Your task to perform on an android device: What is the capital of Italy? Image 0: 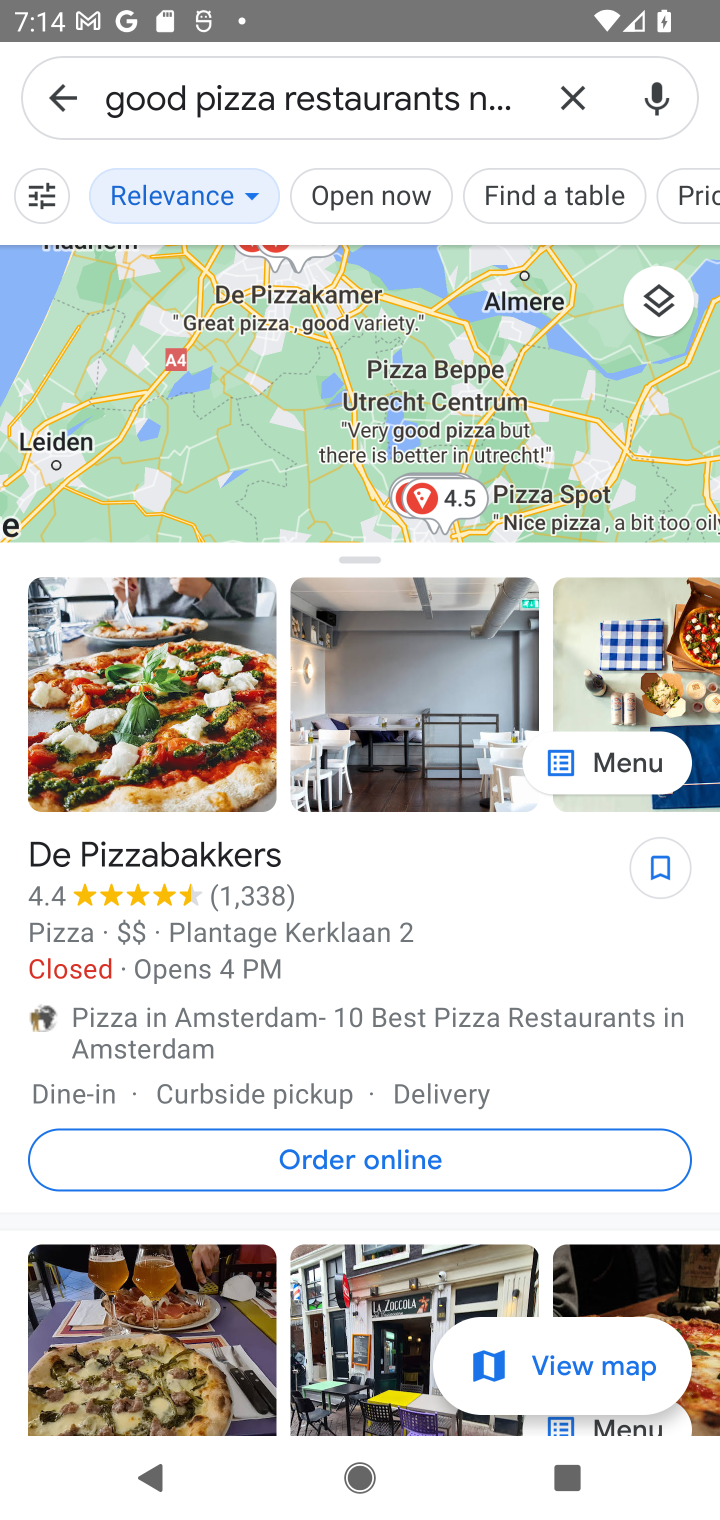
Step 0: press home button
Your task to perform on an android device: What is the capital of Italy? Image 1: 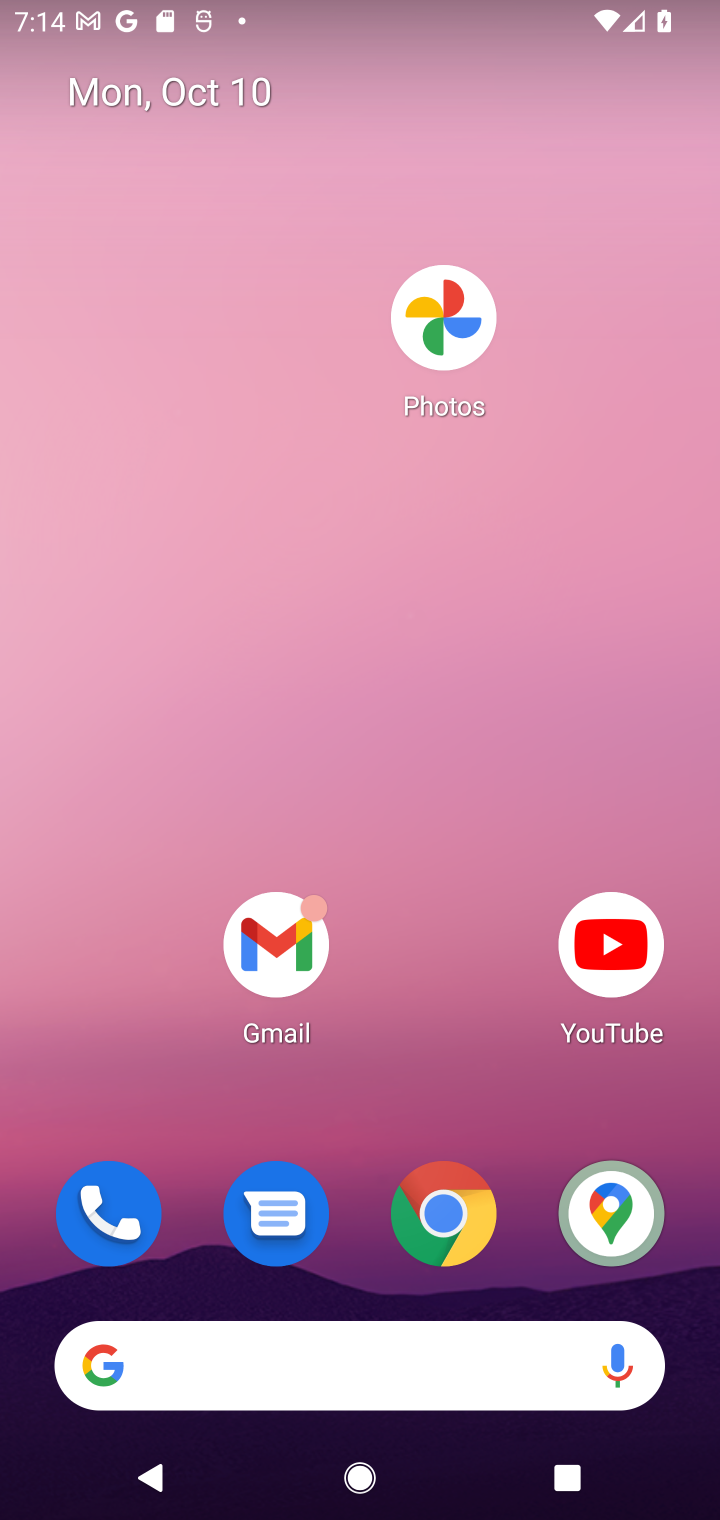
Step 1: click (376, 1346)
Your task to perform on an android device: What is the capital of Italy? Image 2: 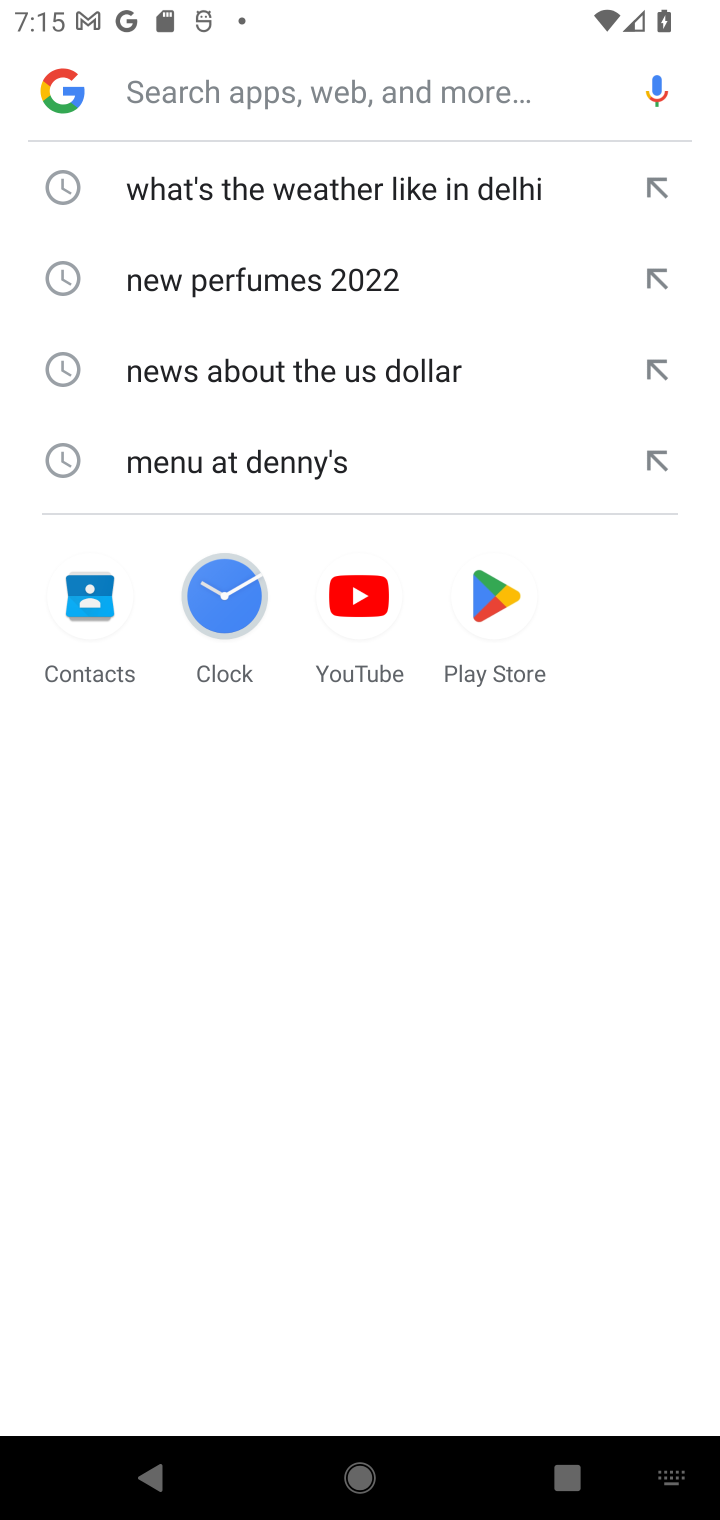
Step 2: type "capital of Italy"
Your task to perform on an android device: What is the capital of Italy? Image 3: 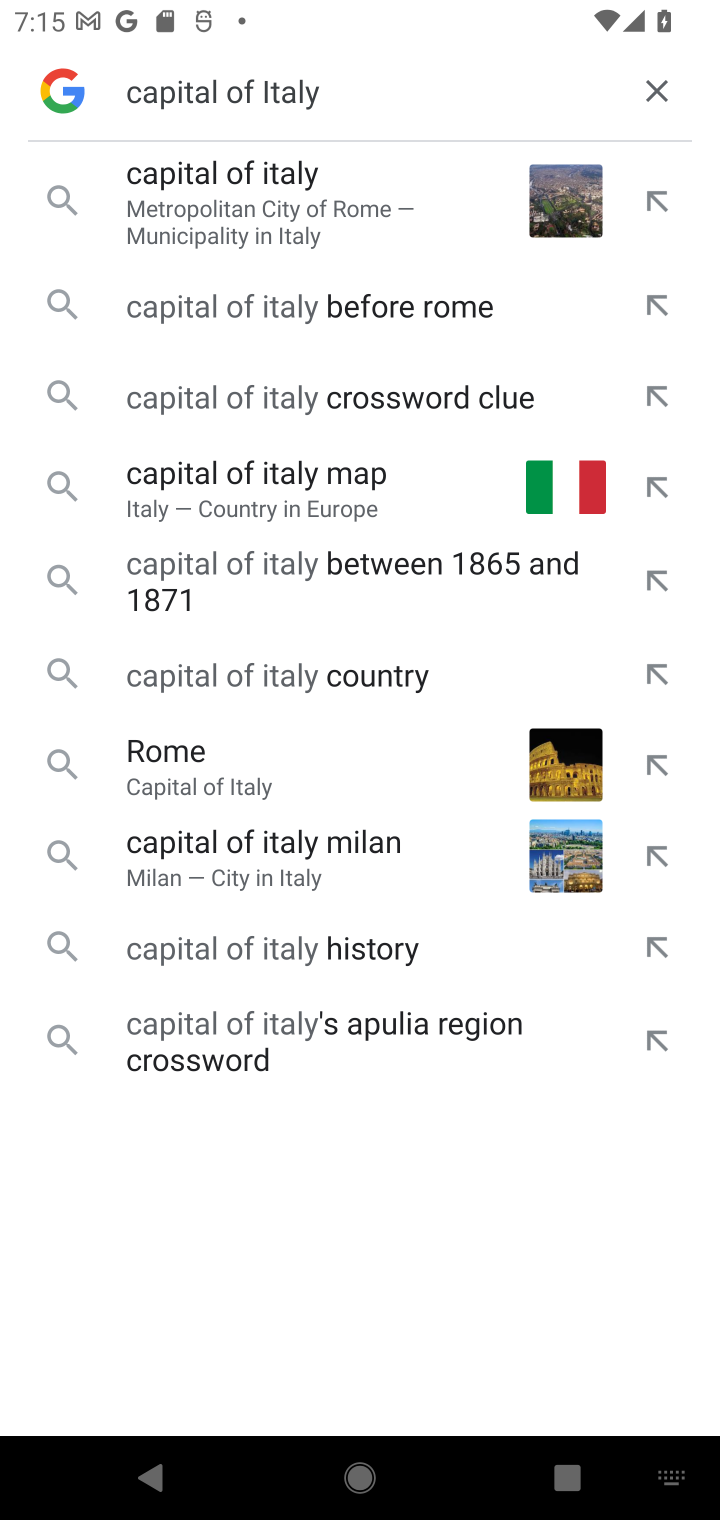
Step 3: click (341, 213)
Your task to perform on an android device: What is the capital of Italy? Image 4: 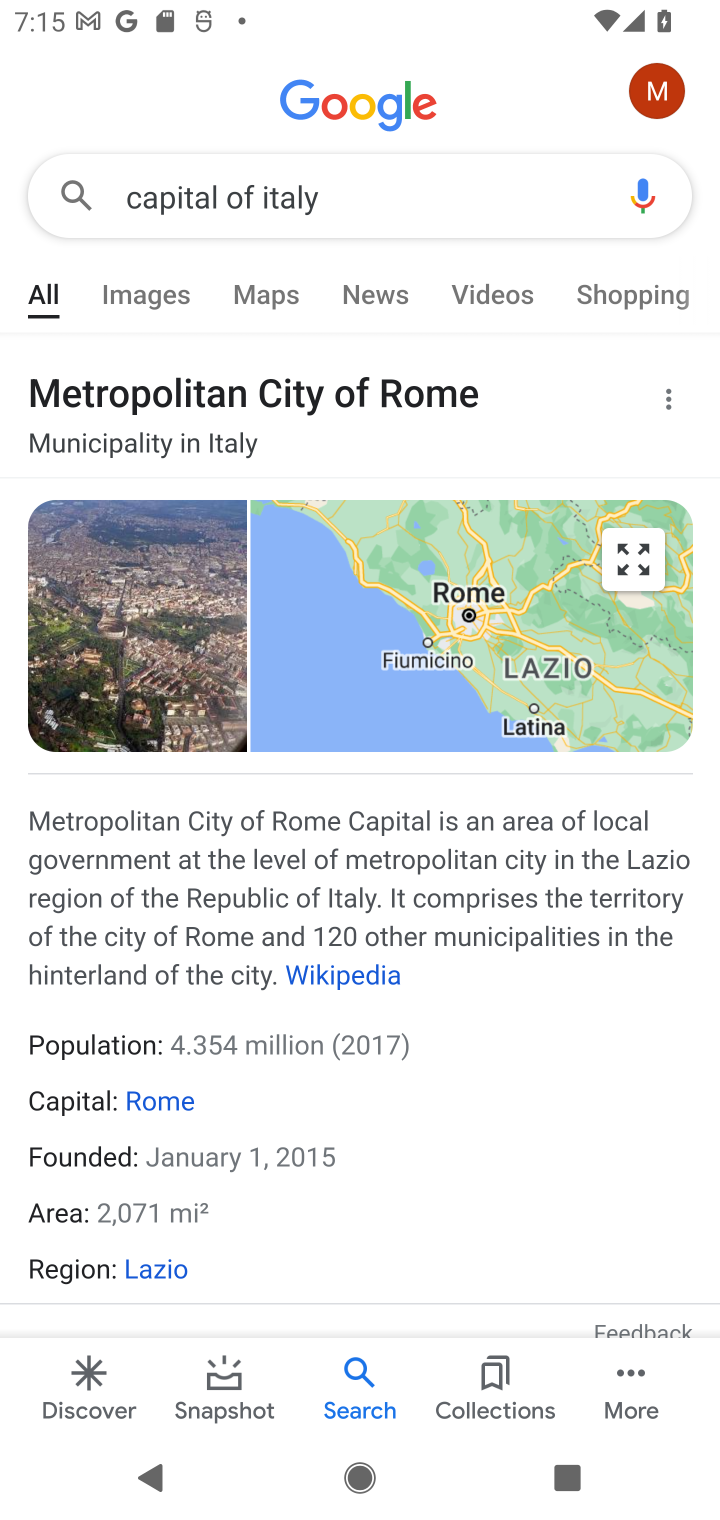
Step 4: task complete